Your task to perform on an android device: turn off sleep mode Image 0: 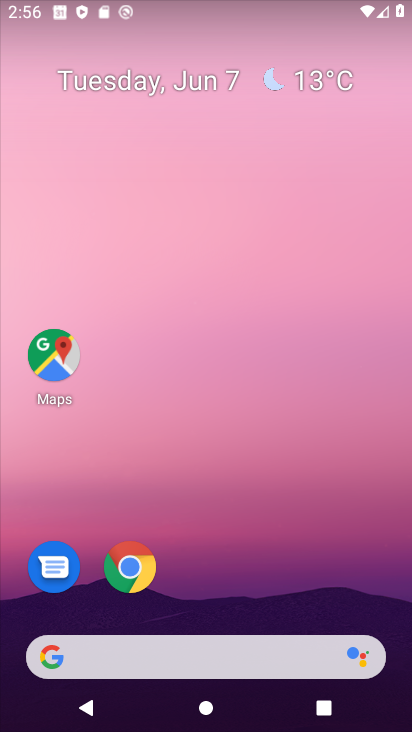
Step 0: press home button
Your task to perform on an android device: turn off sleep mode Image 1: 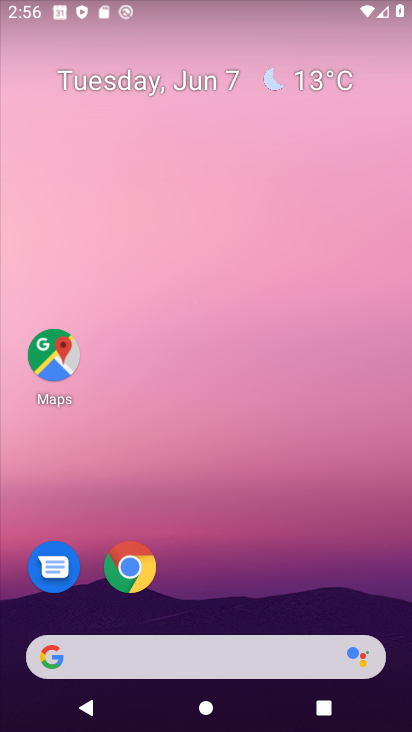
Step 1: drag from (314, 596) to (289, 64)
Your task to perform on an android device: turn off sleep mode Image 2: 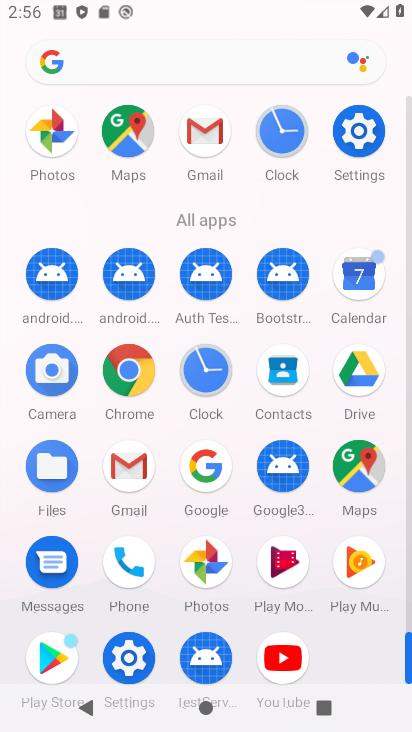
Step 2: click (366, 130)
Your task to perform on an android device: turn off sleep mode Image 3: 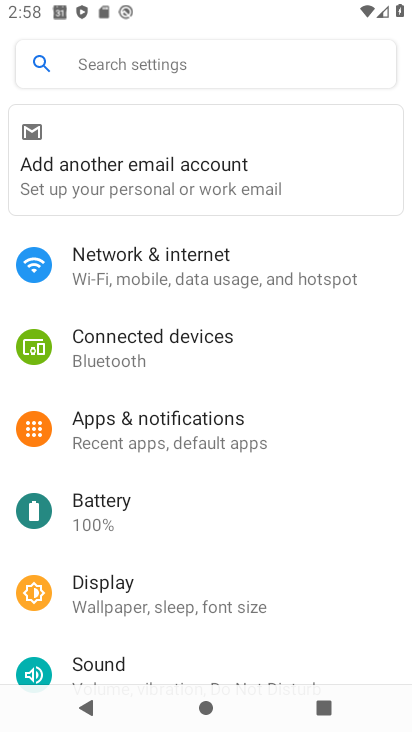
Step 3: drag from (254, 609) to (254, 571)
Your task to perform on an android device: turn off sleep mode Image 4: 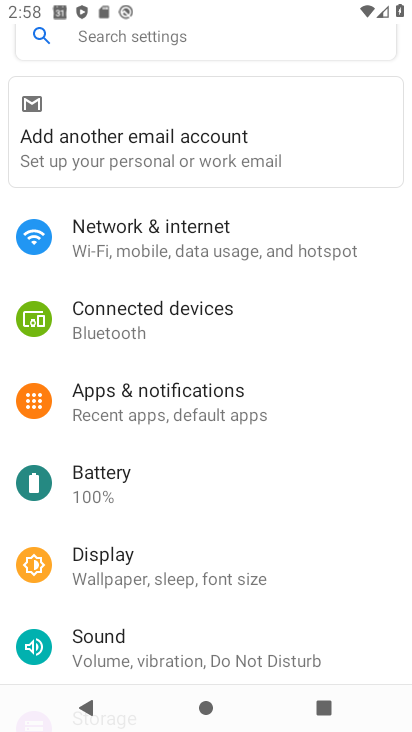
Step 4: click (254, 571)
Your task to perform on an android device: turn off sleep mode Image 5: 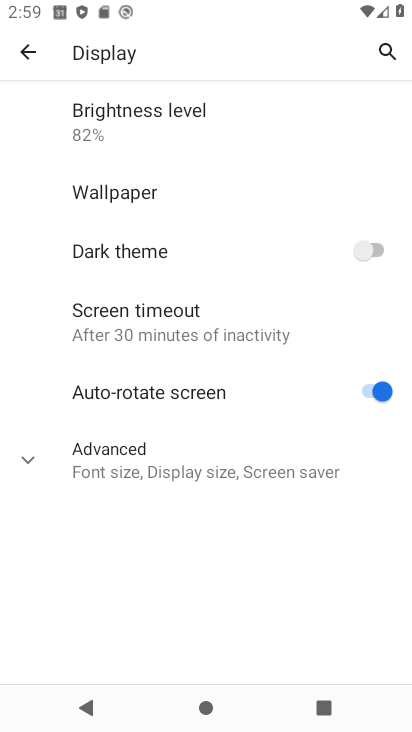
Step 5: task complete